Your task to perform on an android device: check android version Image 0: 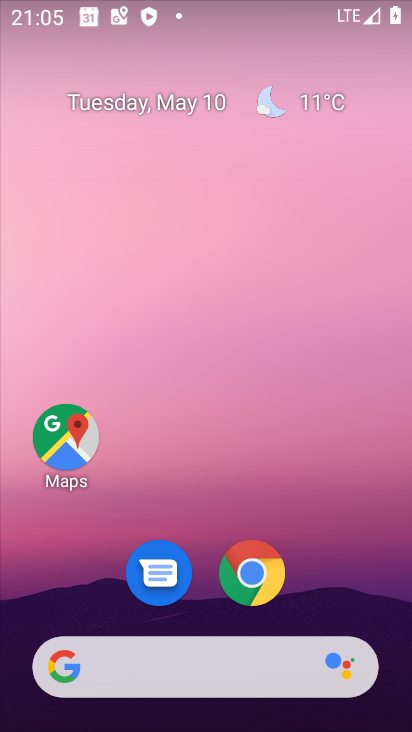
Step 0: drag from (329, 577) to (364, 4)
Your task to perform on an android device: check android version Image 1: 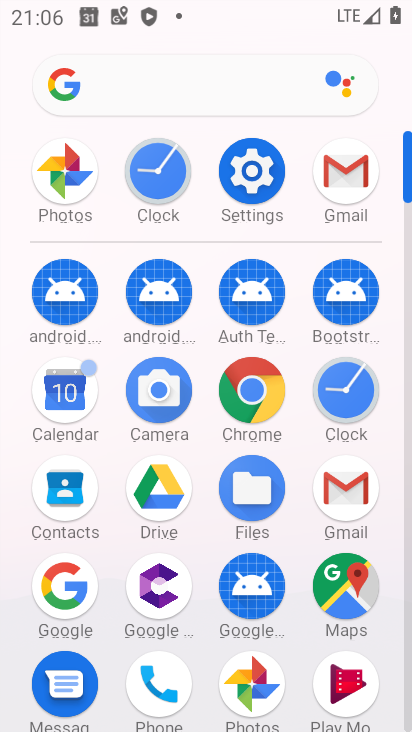
Step 1: click (247, 176)
Your task to perform on an android device: check android version Image 2: 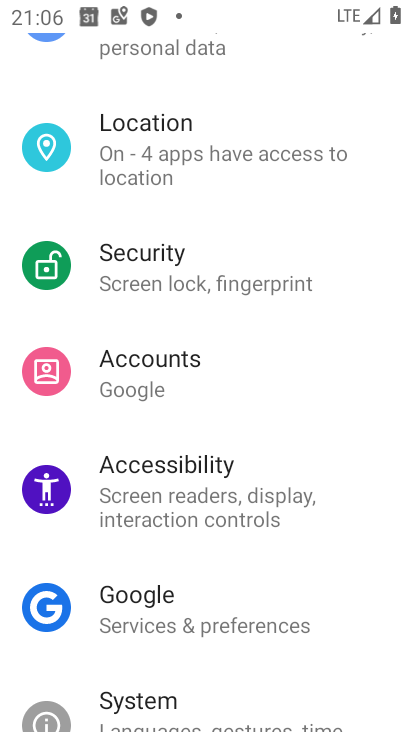
Step 2: drag from (303, 657) to (316, 70)
Your task to perform on an android device: check android version Image 3: 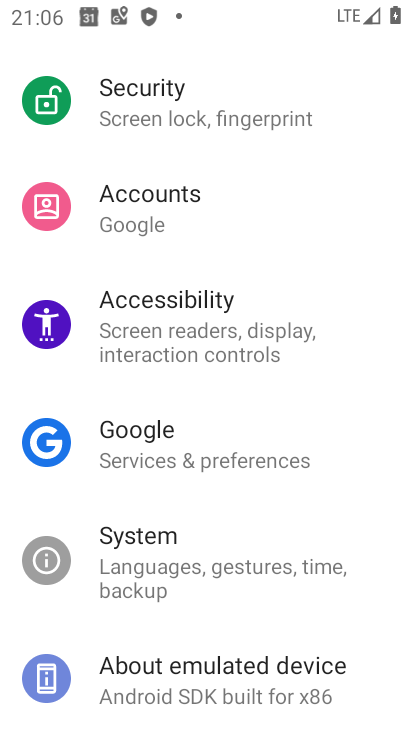
Step 3: click (222, 661)
Your task to perform on an android device: check android version Image 4: 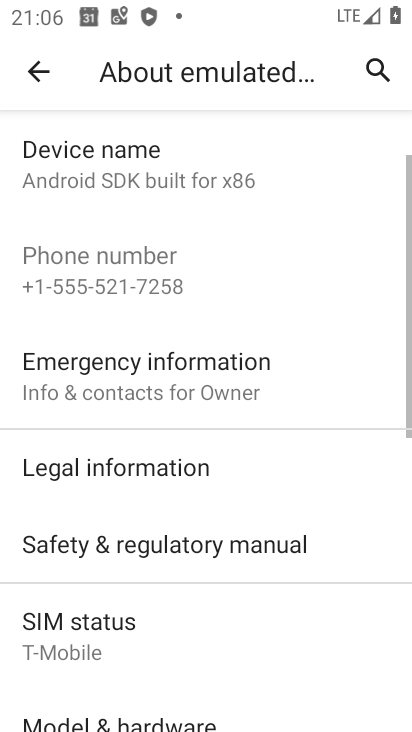
Step 4: drag from (300, 637) to (310, 174)
Your task to perform on an android device: check android version Image 5: 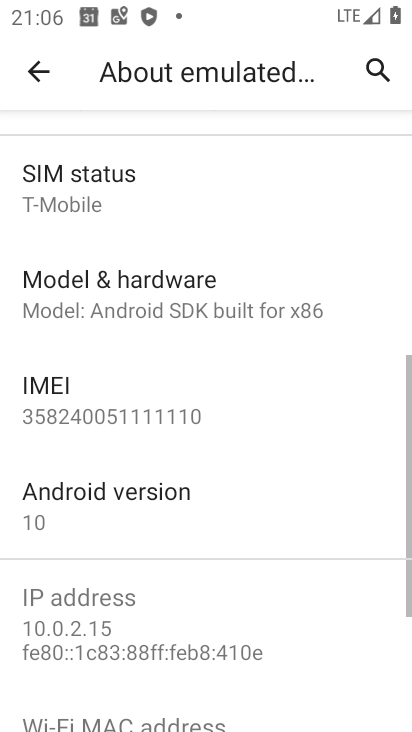
Step 5: click (104, 508)
Your task to perform on an android device: check android version Image 6: 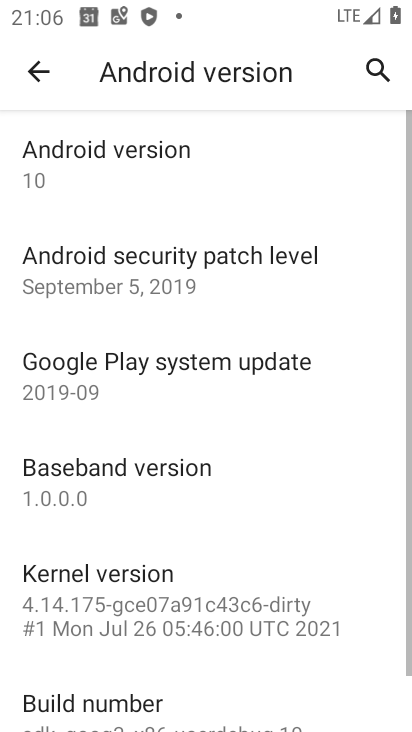
Step 6: task complete